Your task to perform on an android device: turn on improve location accuracy Image 0: 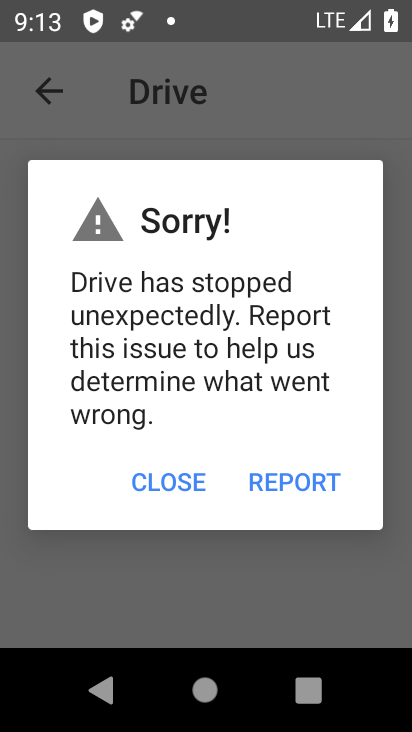
Step 0: press home button
Your task to perform on an android device: turn on improve location accuracy Image 1: 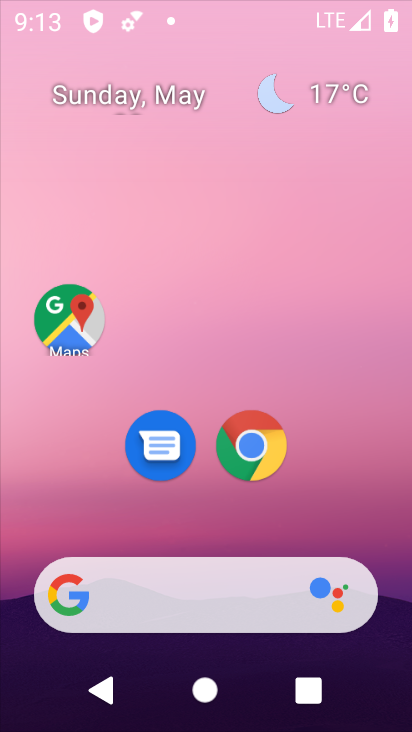
Step 1: drag from (200, 577) to (219, 16)
Your task to perform on an android device: turn on improve location accuracy Image 2: 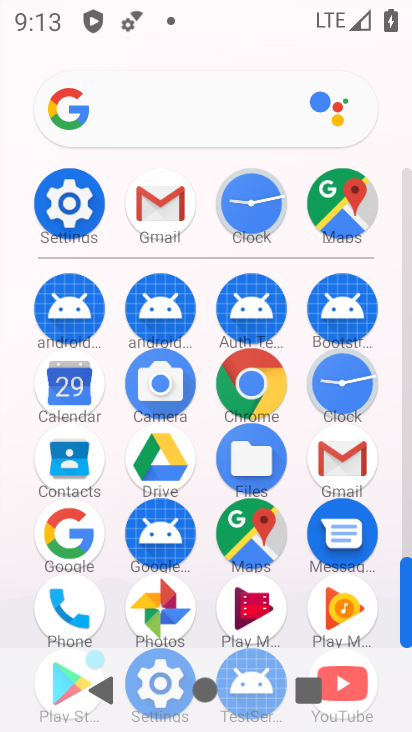
Step 2: click (55, 200)
Your task to perform on an android device: turn on improve location accuracy Image 3: 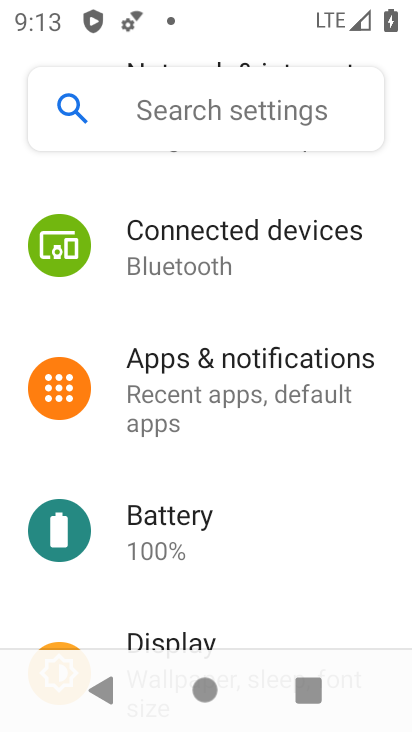
Step 3: drag from (244, 570) to (292, 99)
Your task to perform on an android device: turn on improve location accuracy Image 4: 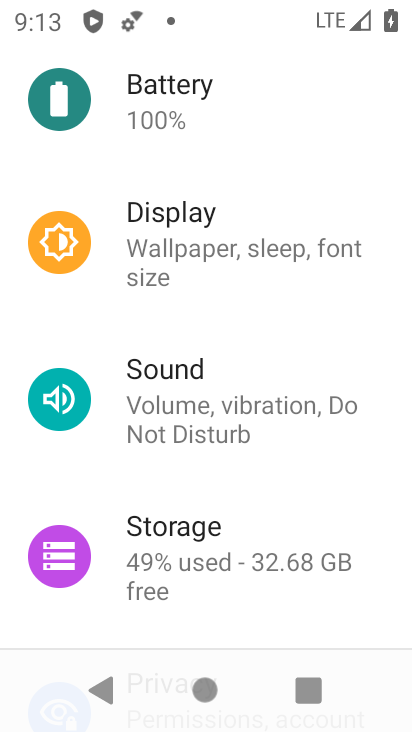
Step 4: drag from (209, 511) to (258, 108)
Your task to perform on an android device: turn on improve location accuracy Image 5: 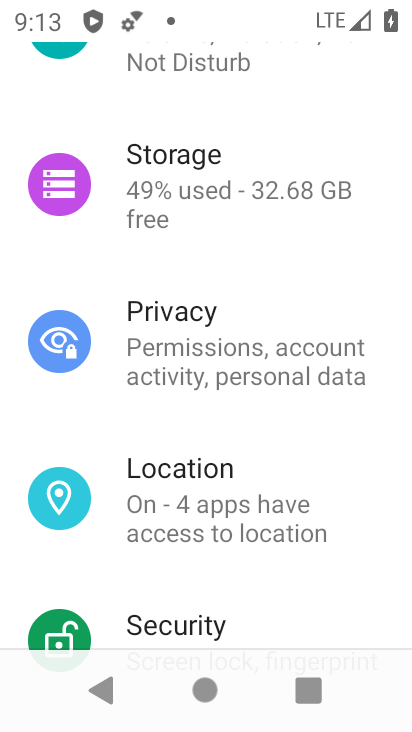
Step 5: click (235, 523)
Your task to perform on an android device: turn on improve location accuracy Image 6: 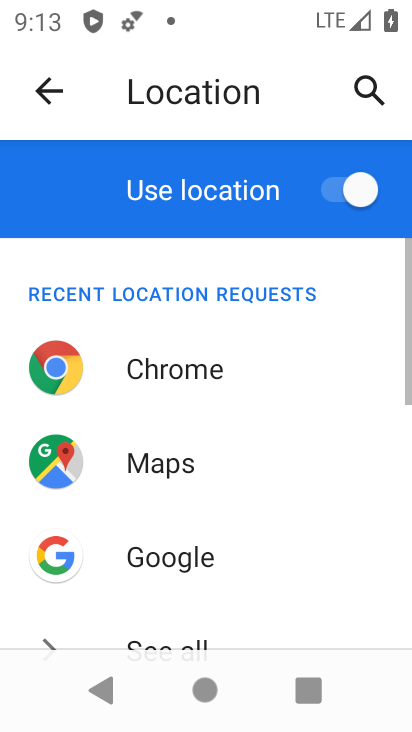
Step 6: drag from (238, 501) to (303, 117)
Your task to perform on an android device: turn on improve location accuracy Image 7: 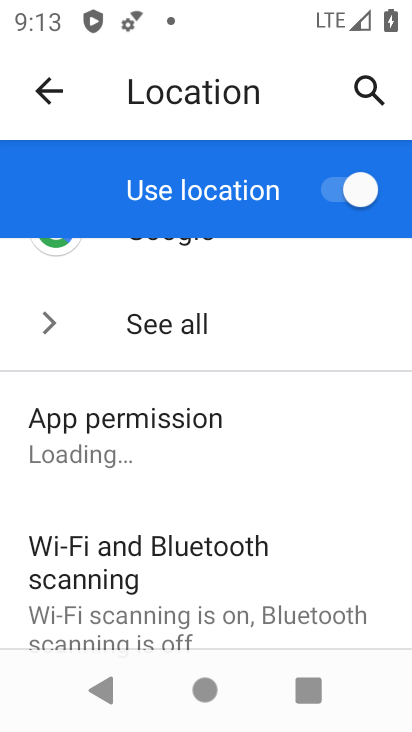
Step 7: drag from (213, 578) to (282, 164)
Your task to perform on an android device: turn on improve location accuracy Image 8: 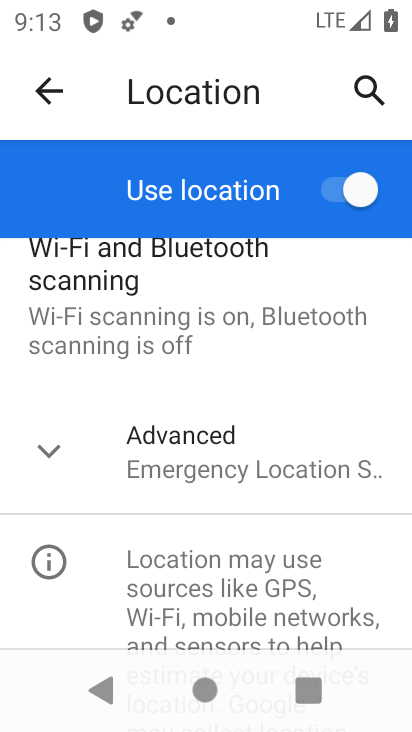
Step 8: click (135, 467)
Your task to perform on an android device: turn on improve location accuracy Image 9: 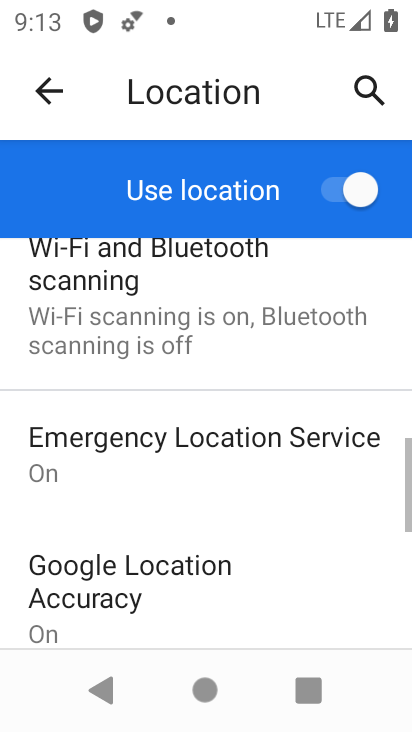
Step 9: drag from (244, 610) to (301, 27)
Your task to perform on an android device: turn on improve location accuracy Image 10: 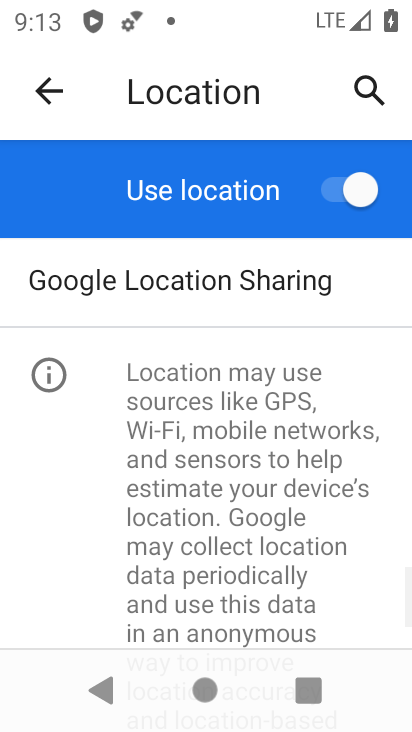
Step 10: drag from (152, 374) to (208, 648)
Your task to perform on an android device: turn on improve location accuracy Image 11: 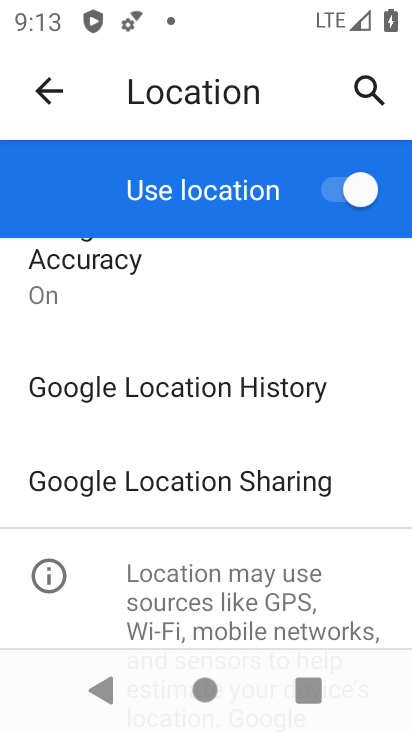
Step 11: drag from (193, 335) to (203, 552)
Your task to perform on an android device: turn on improve location accuracy Image 12: 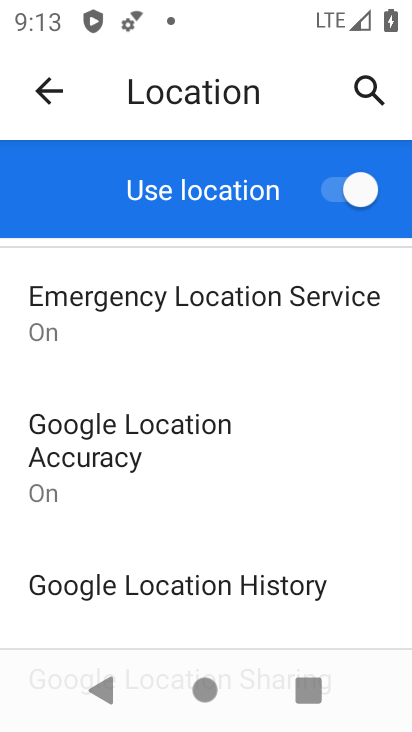
Step 12: click (150, 442)
Your task to perform on an android device: turn on improve location accuracy Image 13: 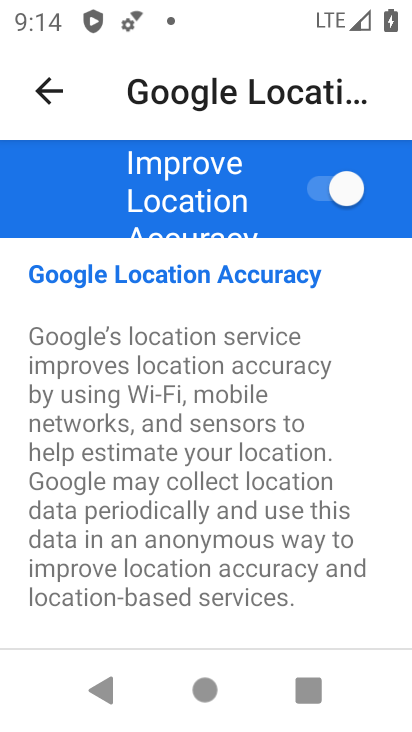
Step 13: task complete